Your task to perform on an android device: Go to network settings Image 0: 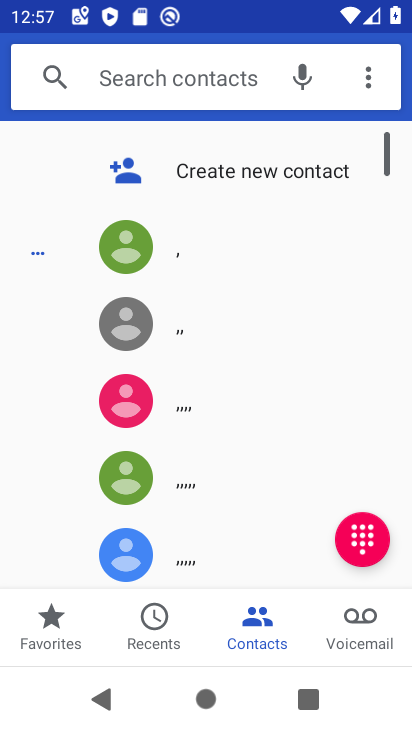
Step 0: press home button
Your task to perform on an android device: Go to network settings Image 1: 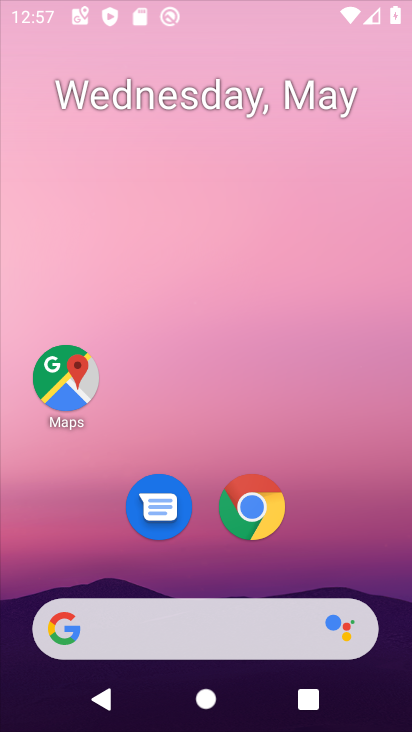
Step 1: drag from (238, 556) to (230, 269)
Your task to perform on an android device: Go to network settings Image 2: 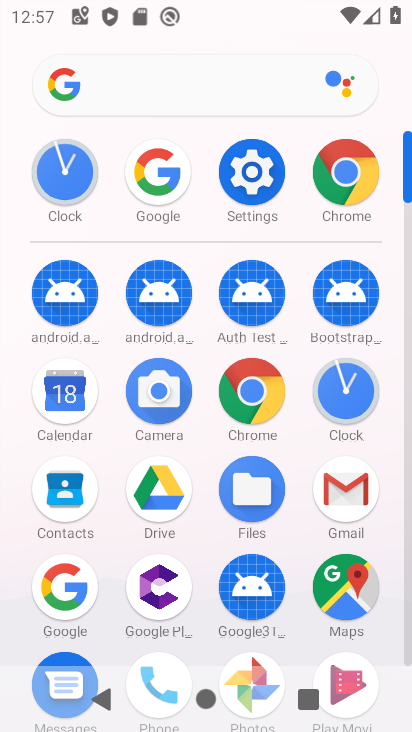
Step 2: click (245, 173)
Your task to perform on an android device: Go to network settings Image 3: 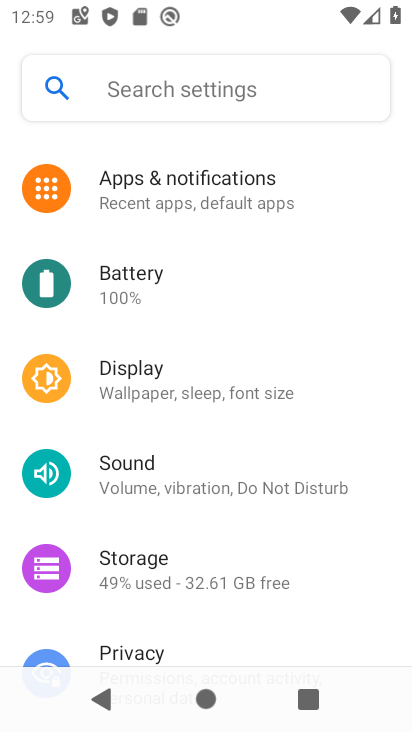
Step 3: drag from (227, 205) to (234, 365)
Your task to perform on an android device: Go to network settings Image 4: 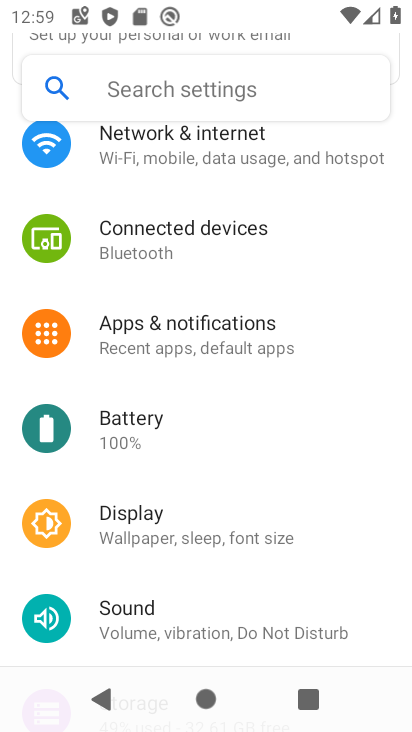
Step 4: click (234, 370)
Your task to perform on an android device: Go to network settings Image 5: 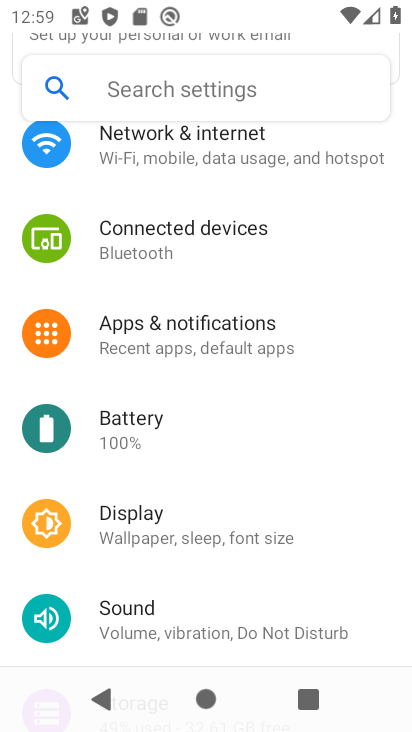
Step 5: click (233, 140)
Your task to perform on an android device: Go to network settings Image 6: 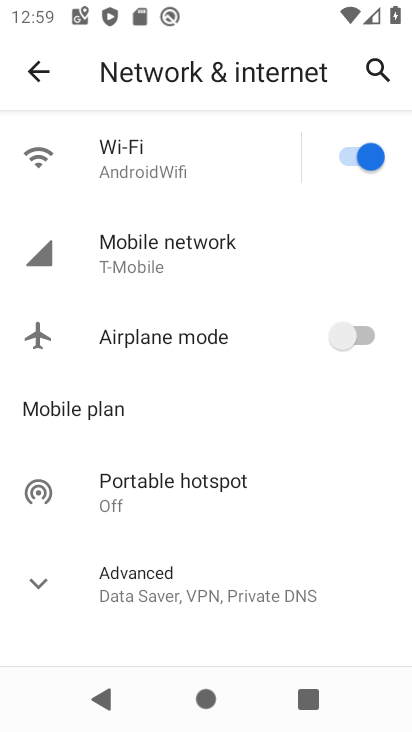
Step 6: task complete